Your task to perform on an android device: turn smart compose on in the gmail app Image 0: 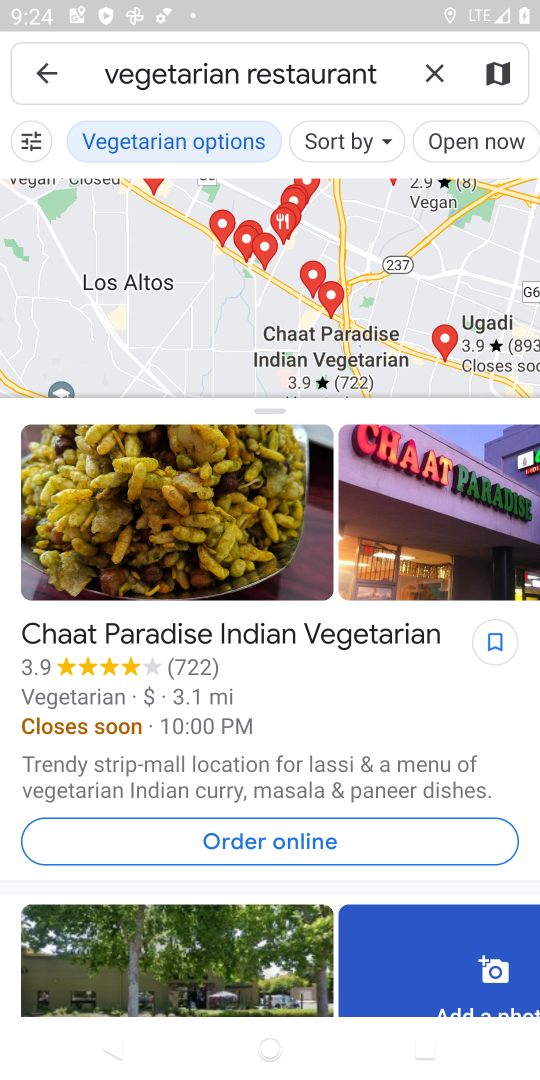
Step 0: press home button
Your task to perform on an android device: turn smart compose on in the gmail app Image 1: 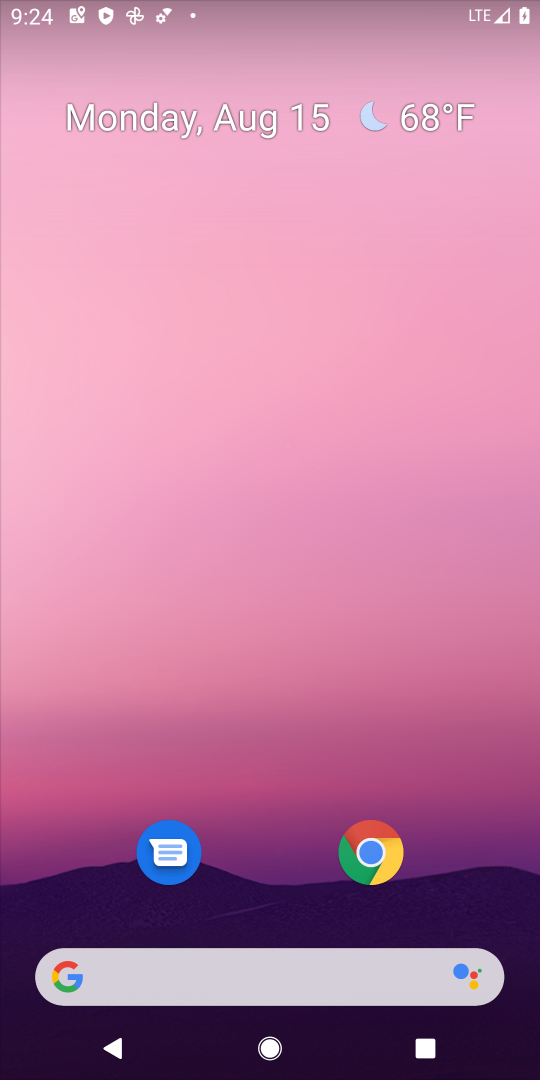
Step 1: drag from (233, 927) to (160, 297)
Your task to perform on an android device: turn smart compose on in the gmail app Image 2: 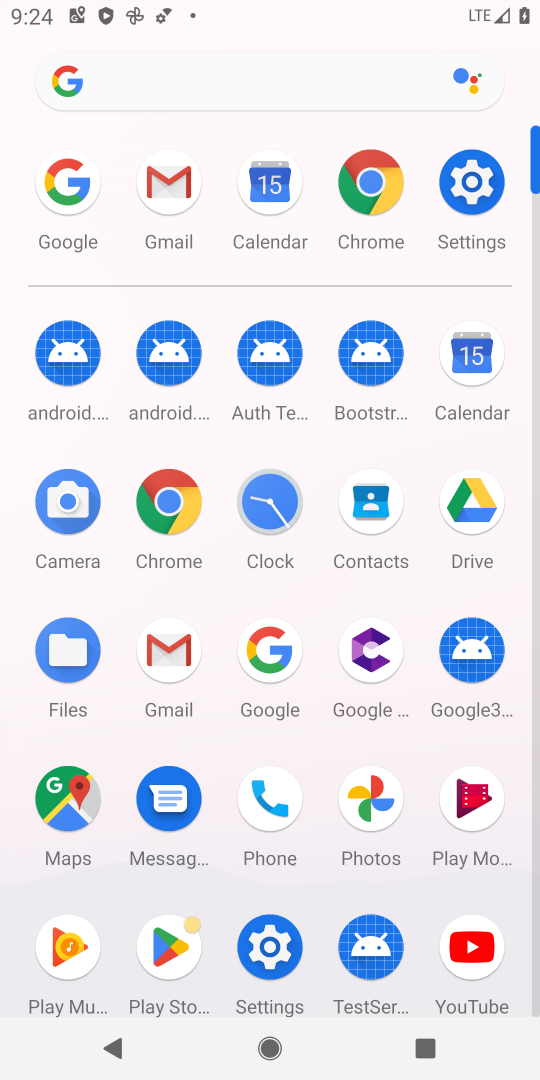
Step 2: click (165, 180)
Your task to perform on an android device: turn smart compose on in the gmail app Image 3: 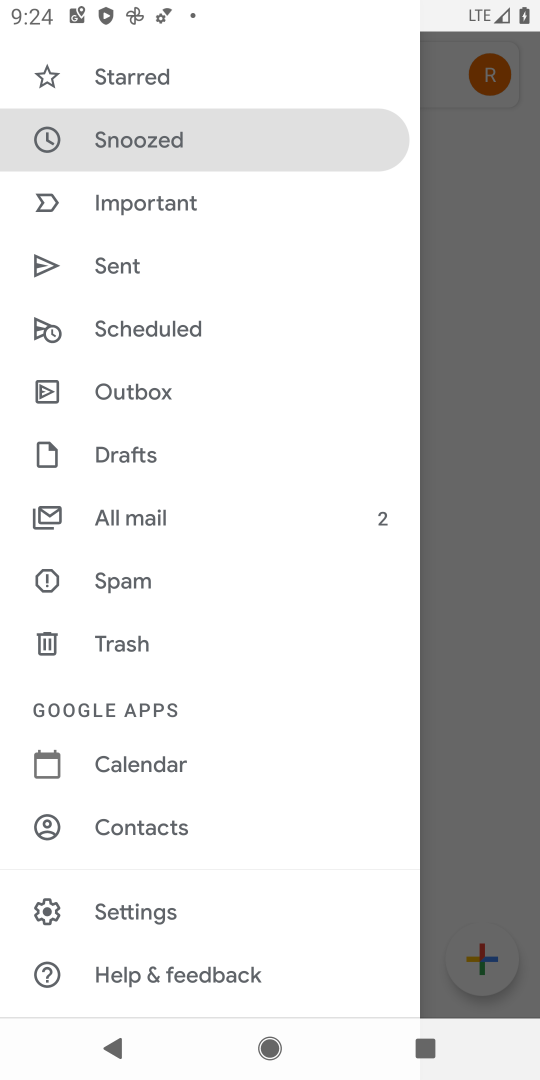
Step 3: drag from (155, 668) to (265, 496)
Your task to perform on an android device: turn smart compose on in the gmail app Image 4: 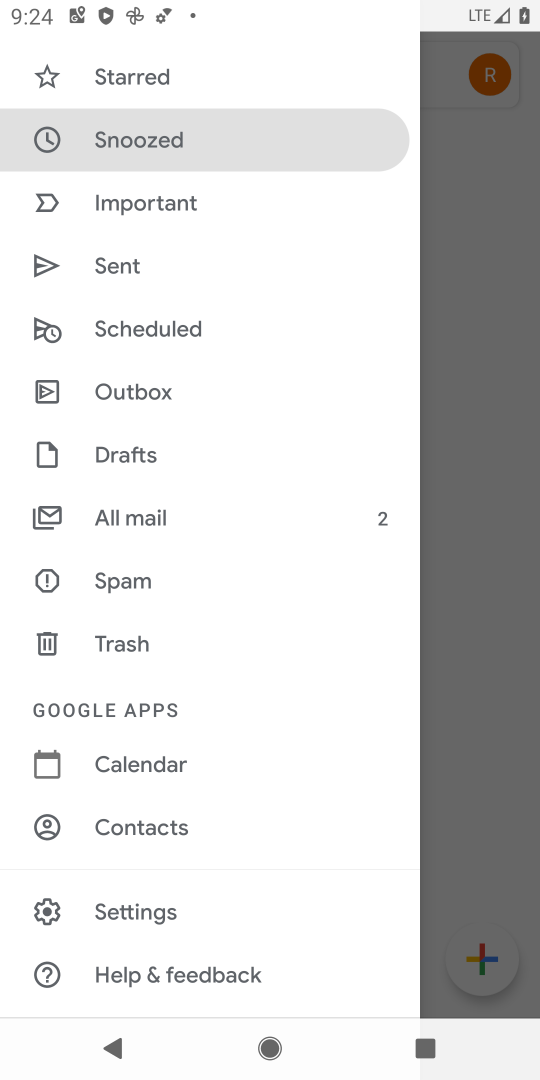
Step 4: click (140, 910)
Your task to perform on an android device: turn smart compose on in the gmail app Image 5: 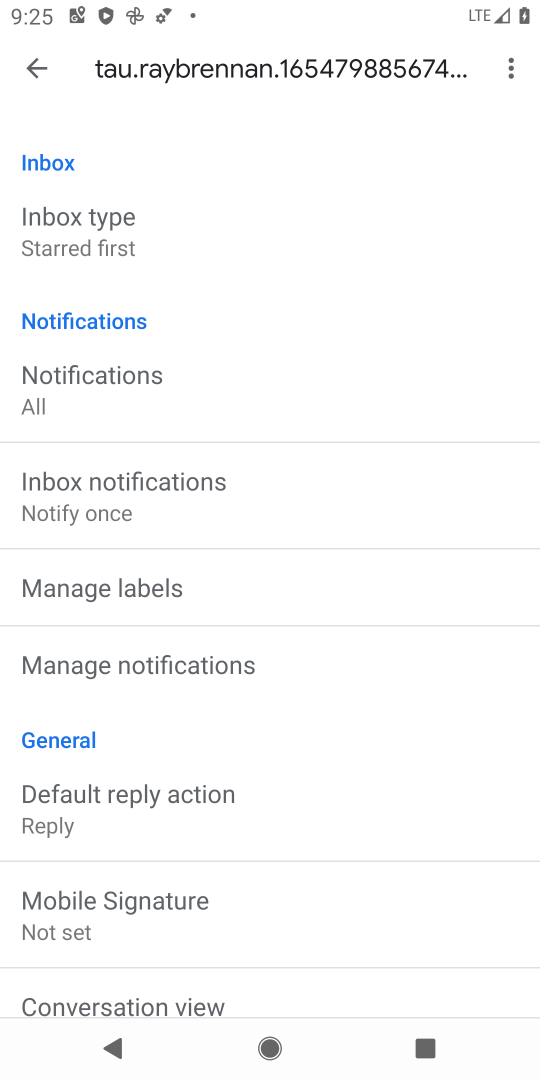
Step 5: task complete